Your task to perform on an android device: open sync settings in chrome Image 0: 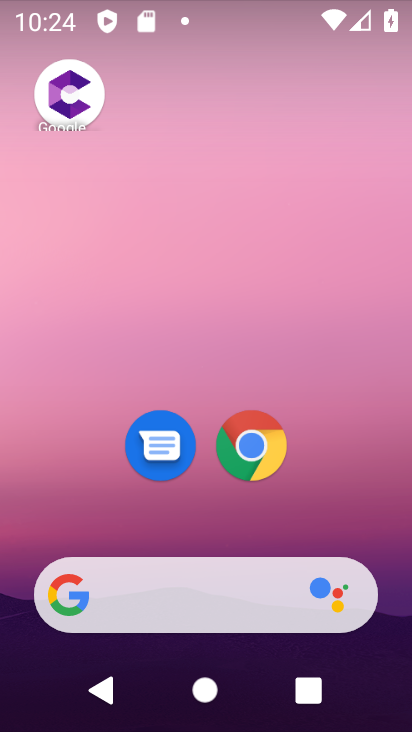
Step 0: click (242, 441)
Your task to perform on an android device: open sync settings in chrome Image 1: 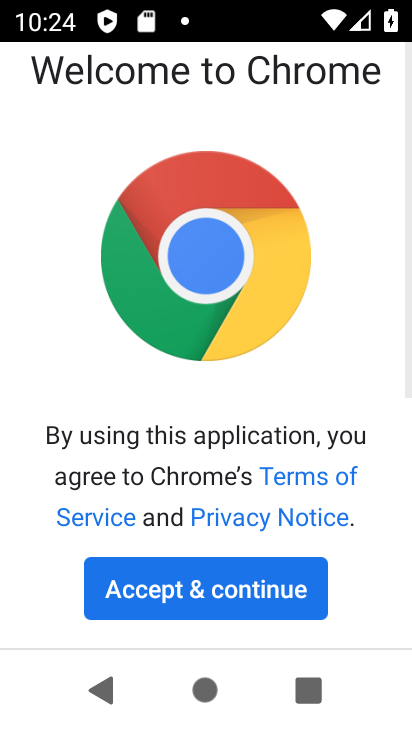
Step 1: click (203, 603)
Your task to perform on an android device: open sync settings in chrome Image 2: 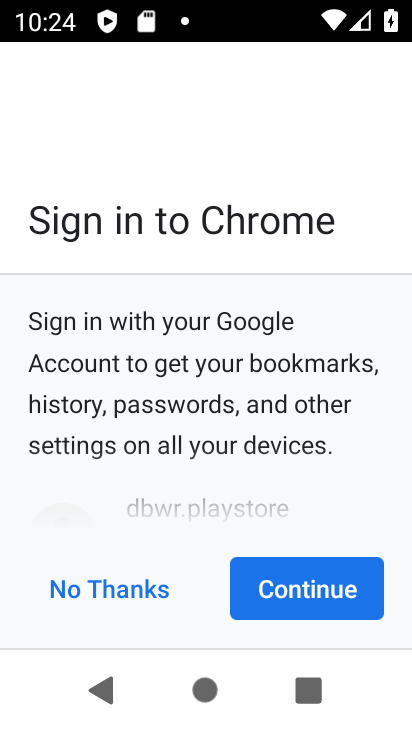
Step 2: click (295, 576)
Your task to perform on an android device: open sync settings in chrome Image 3: 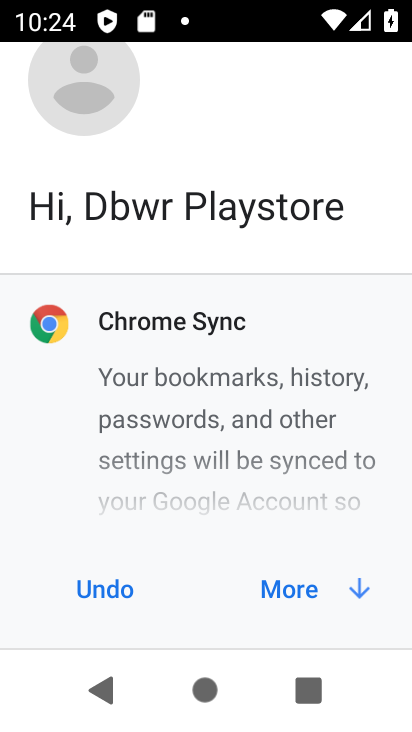
Step 3: click (296, 585)
Your task to perform on an android device: open sync settings in chrome Image 4: 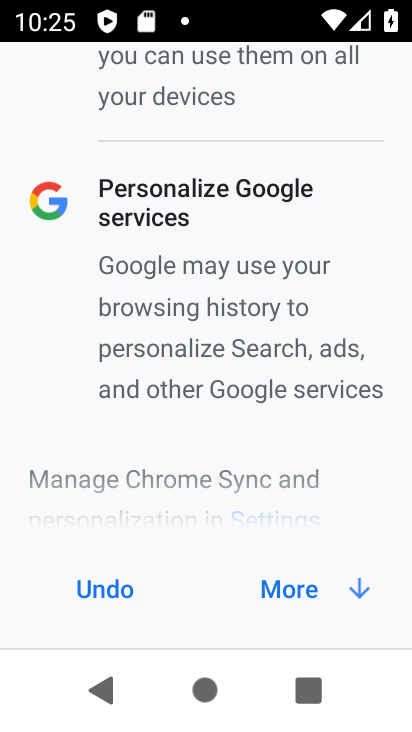
Step 4: click (292, 595)
Your task to perform on an android device: open sync settings in chrome Image 5: 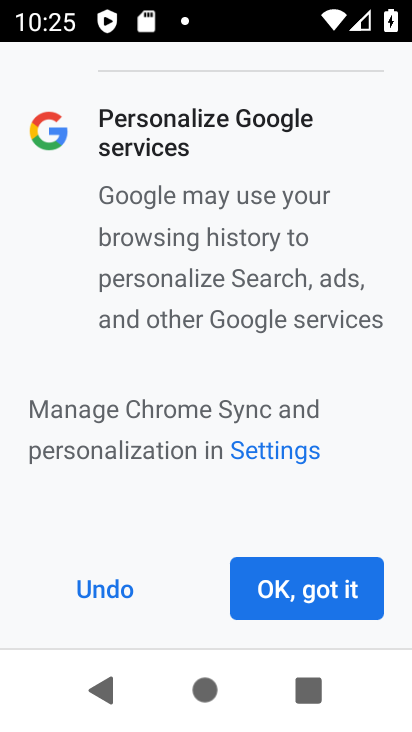
Step 5: click (292, 593)
Your task to perform on an android device: open sync settings in chrome Image 6: 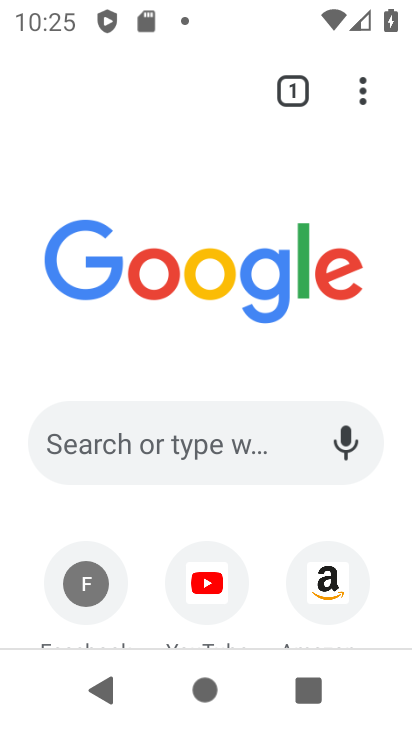
Step 6: click (367, 82)
Your task to perform on an android device: open sync settings in chrome Image 7: 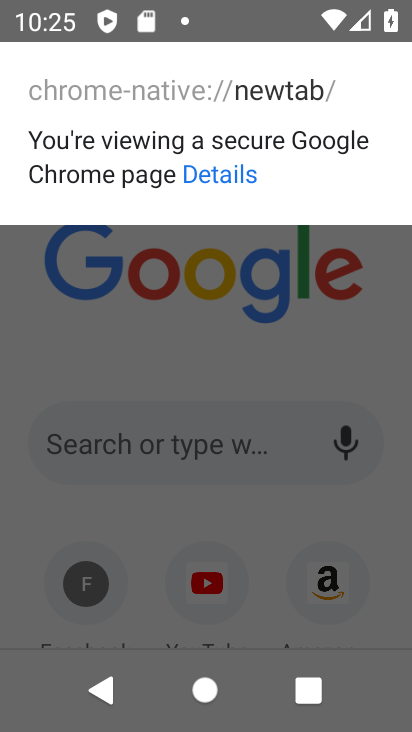
Step 7: click (163, 333)
Your task to perform on an android device: open sync settings in chrome Image 8: 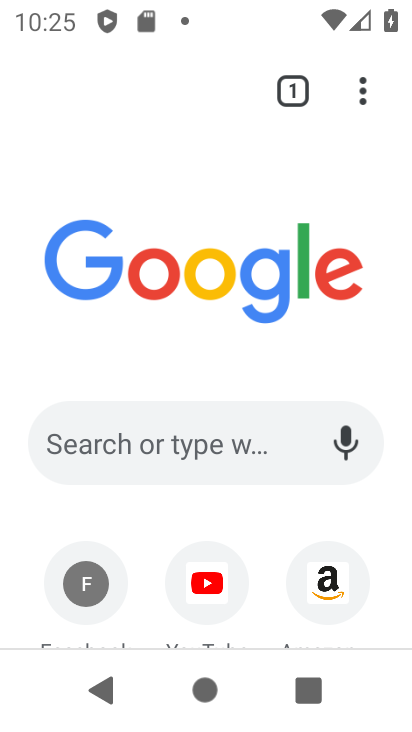
Step 8: click (383, 80)
Your task to perform on an android device: open sync settings in chrome Image 9: 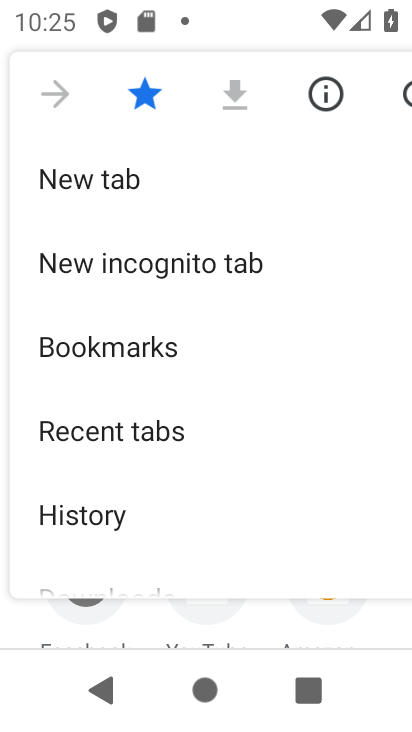
Step 9: drag from (129, 484) to (178, 175)
Your task to perform on an android device: open sync settings in chrome Image 10: 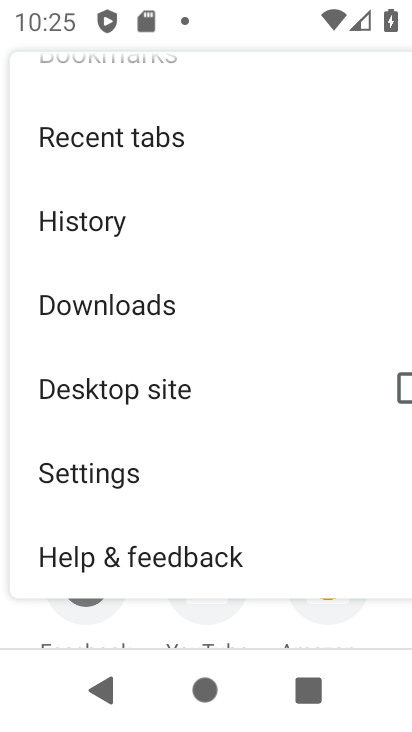
Step 10: click (120, 479)
Your task to perform on an android device: open sync settings in chrome Image 11: 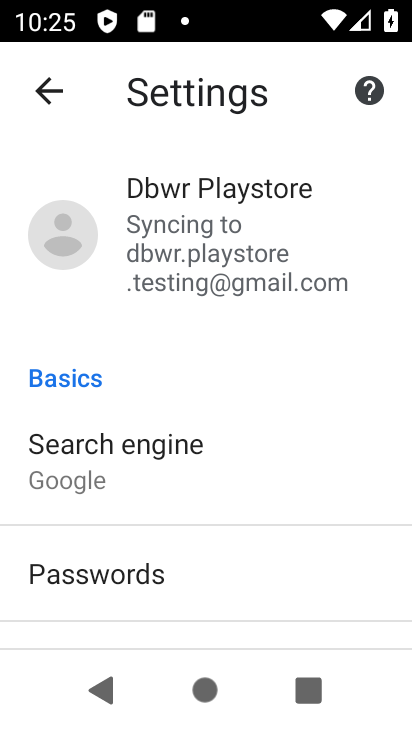
Step 11: click (171, 255)
Your task to perform on an android device: open sync settings in chrome Image 12: 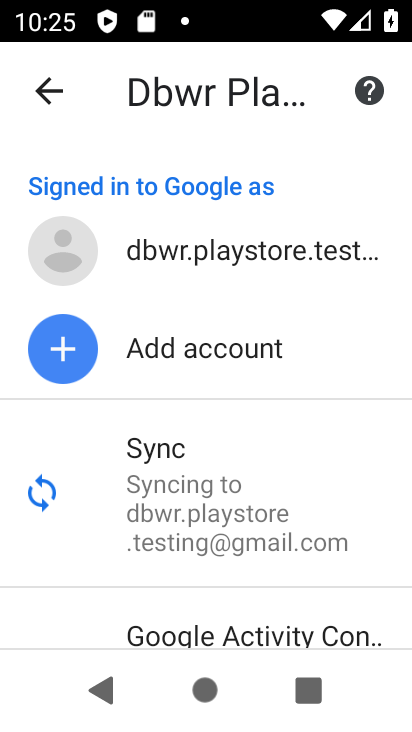
Step 12: click (241, 497)
Your task to perform on an android device: open sync settings in chrome Image 13: 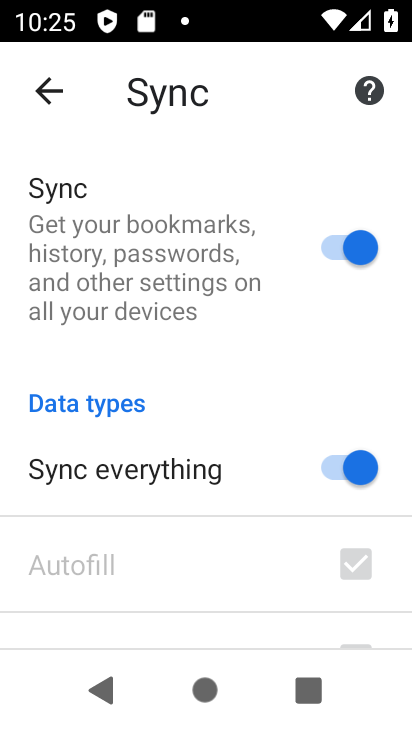
Step 13: task complete